Your task to perform on an android device: clear history in the chrome app Image 0: 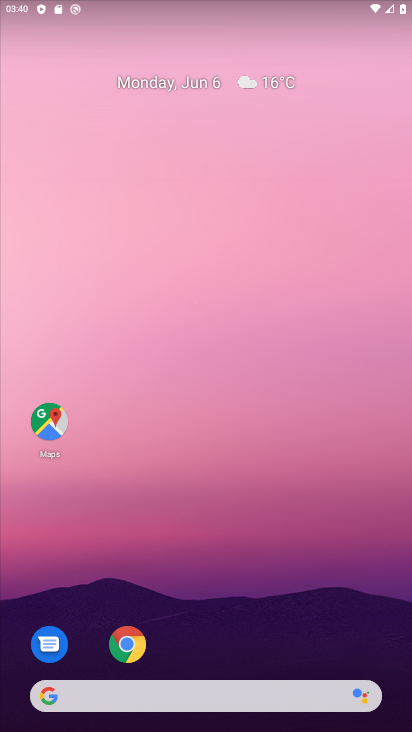
Step 0: drag from (382, 668) to (401, 84)
Your task to perform on an android device: clear history in the chrome app Image 1: 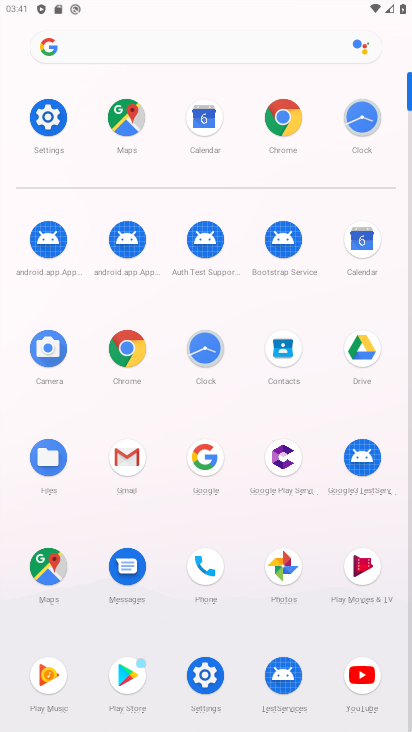
Step 1: click (127, 348)
Your task to perform on an android device: clear history in the chrome app Image 2: 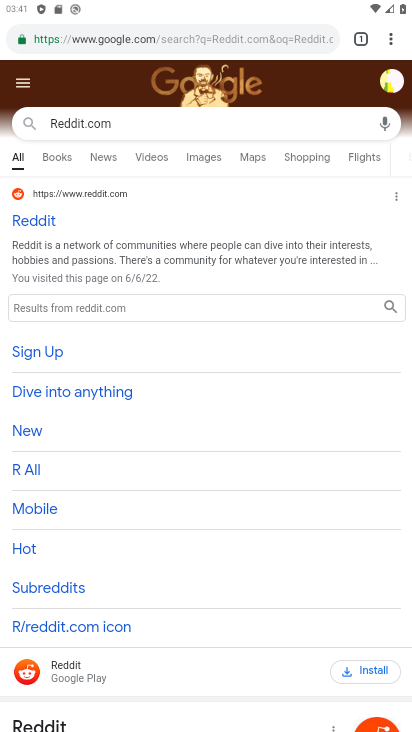
Step 2: click (389, 36)
Your task to perform on an android device: clear history in the chrome app Image 3: 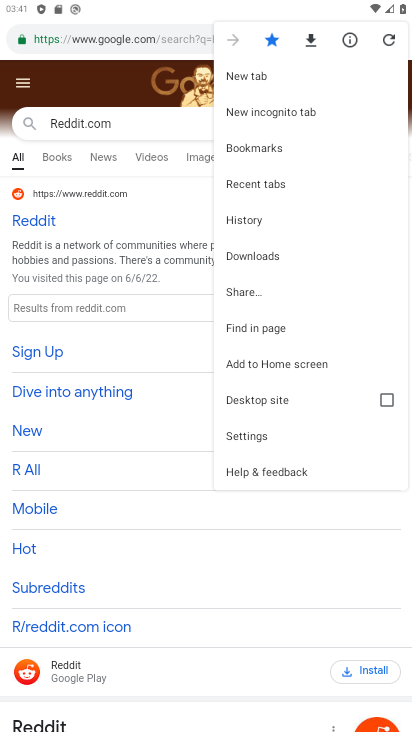
Step 3: click (253, 218)
Your task to perform on an android device: clear history in the chrome app Image 4: 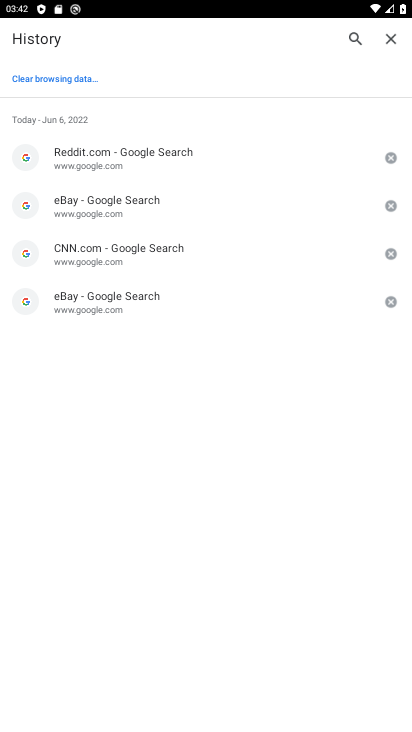
Step 4: click (63, 75)
Your task to perform on an android device: clear history in the chrome app Image 5: 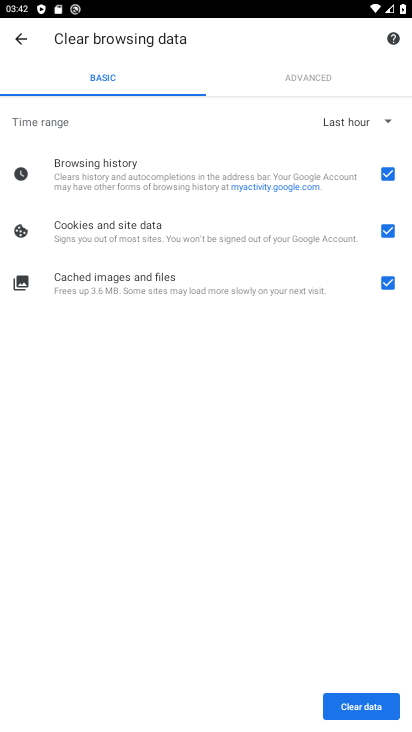
Step 5: click (347, 711)
Your task to perform on an android device: clear history in the chrome app Image 6: 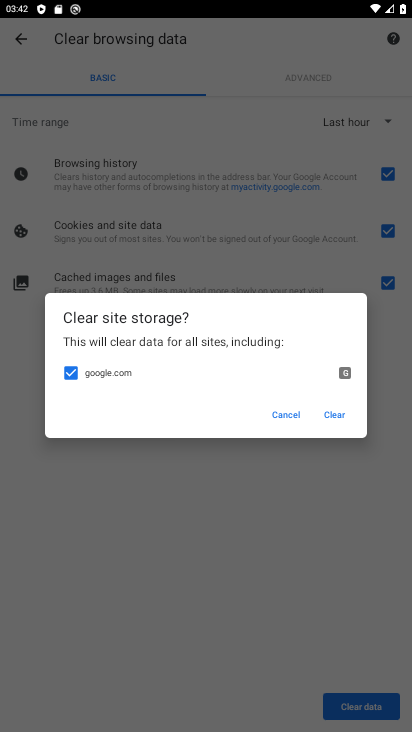
Step 6: click (337, 415)
Your task to perform on an android device: clear history in the chrome app Image 7: 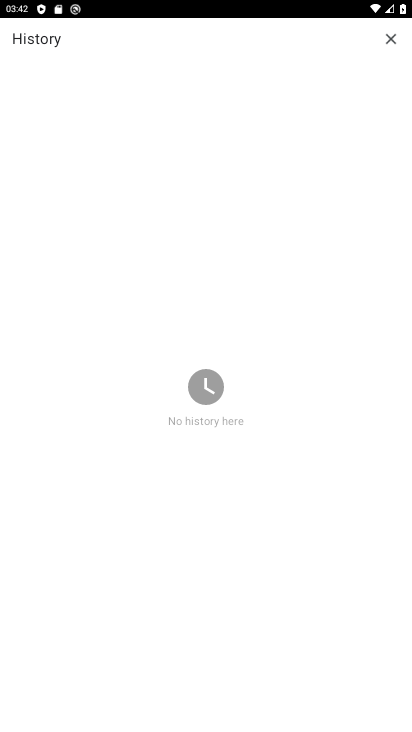
Step 7: task complete